Your task to perform on an android device: check storage Image 0: 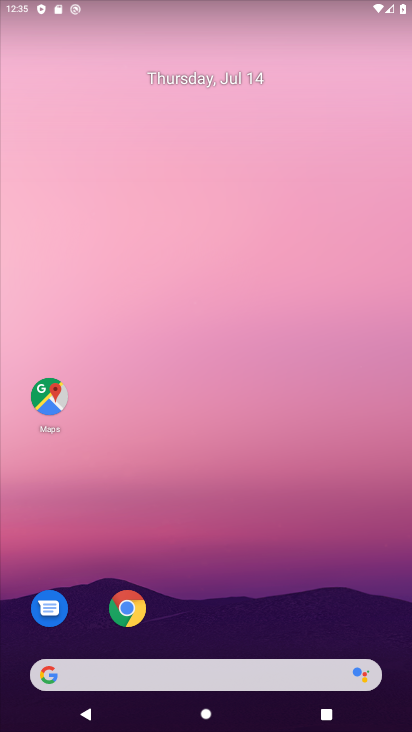
Step 0: drag from (158, 610) to (220, 225)
Your task to perform on an android device: check storage Image 1: 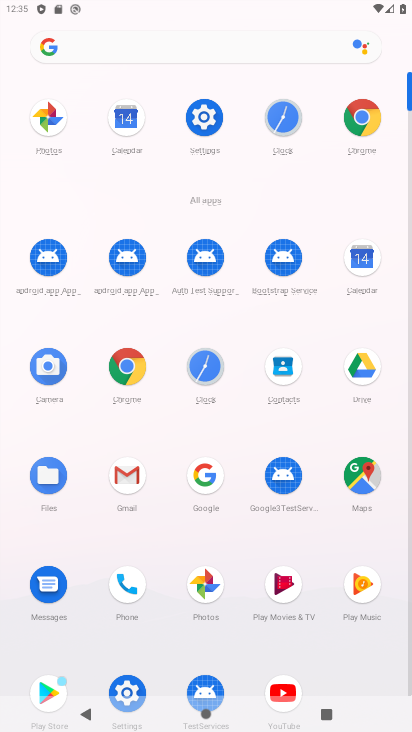
Step 1: click (207, 122)
Your task to perform on an android device: check storage Image 2: 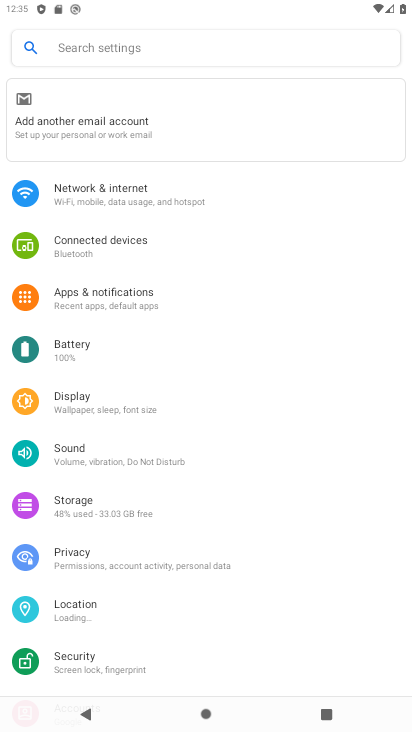
Step 2: click (47, 489)
Your task to perform on an android device: check storage Image 3: 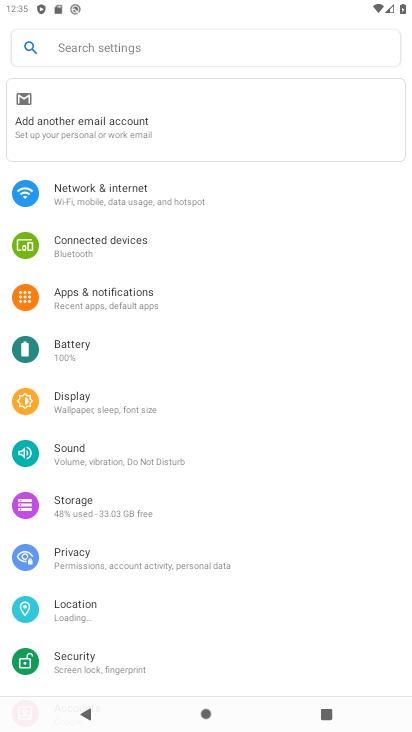
Step 3: click (47, 489)
Your task to perform on an android device: check storage Image 4: 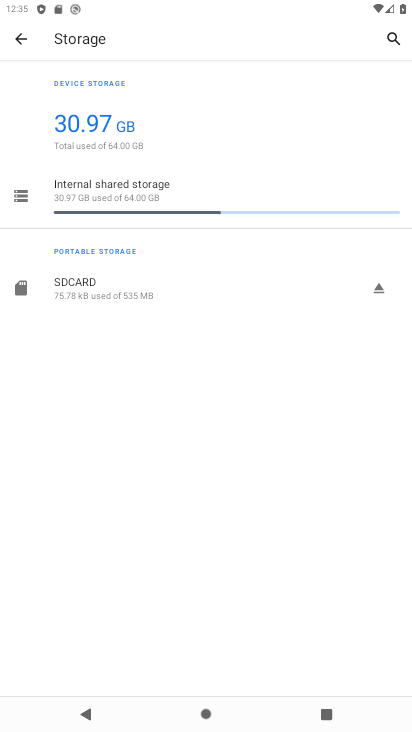
Step 4: task complete